Your task to perform on an android device: change the clock style Image 0: 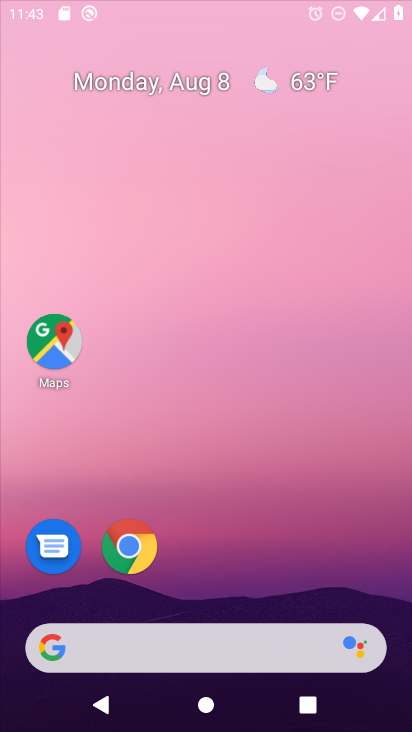
Step 0: press home button
Your task to perform on an android device: change the clock style Image 1: 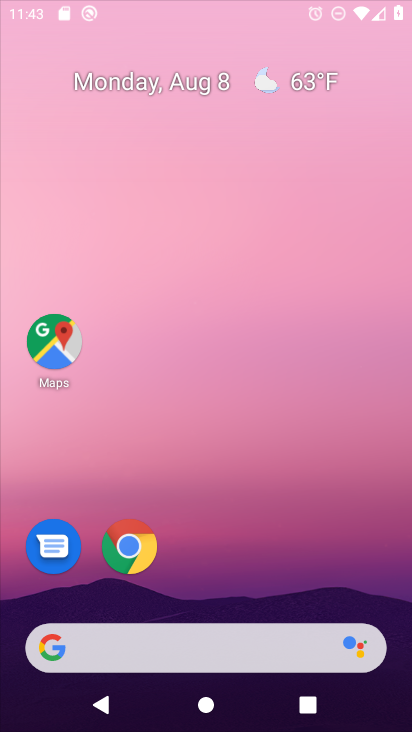
Step 1: click (237, 49)
Your task to perform on an android device: change the clock style Image 2: 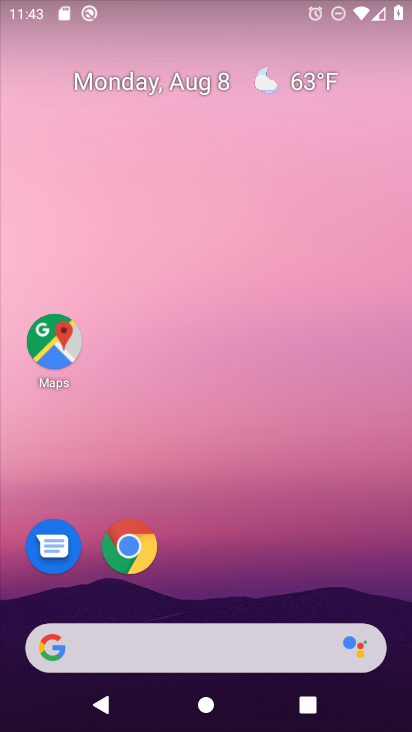
Step 2: drag from (208, 595) to (220, 85)
Your task to perform on an android device: change the clock style Image 3: 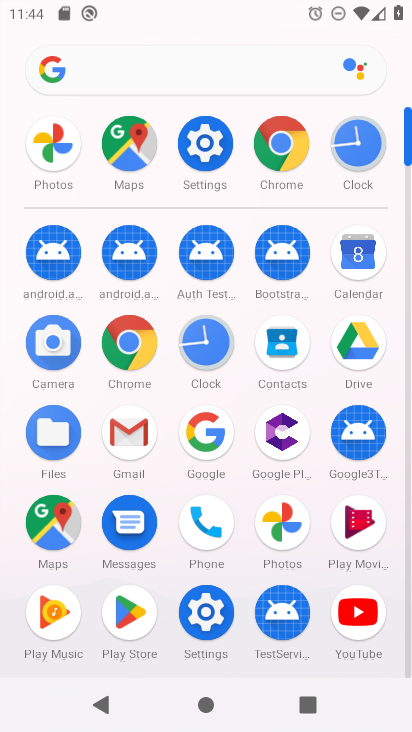
Step 3: click (198, 336)
Your task to perform on an android device: change the clock style Image 4: 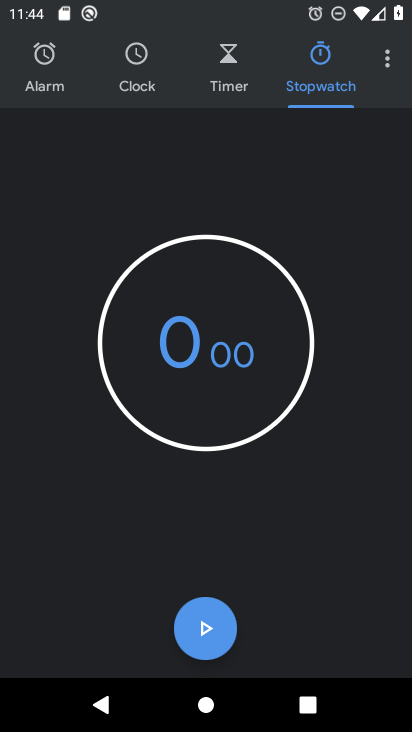
Step 4: click (382, 56)
Your task to perform on an android device: change the clock style Image 5: 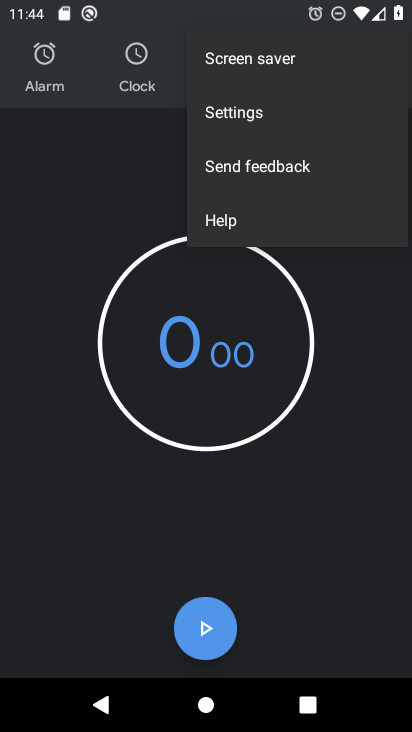
Step 5: click (268, 111)
Your task to perform on an android device: change the clock style Image 6: 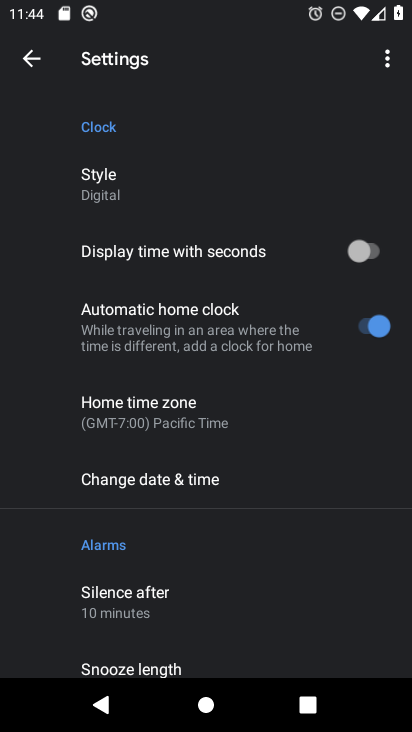
Step 6: click (144, 183)
Your task to perform on an android device: change the clock style Image 7: 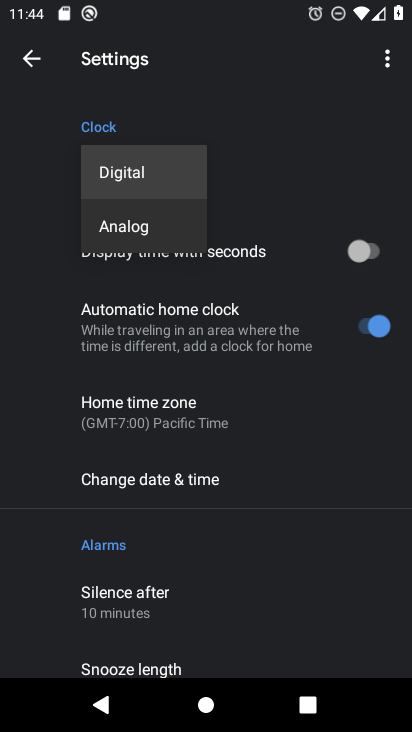
Step 7: click (167, 238)
Your task to perform on an android device: change the clock style Image 8: 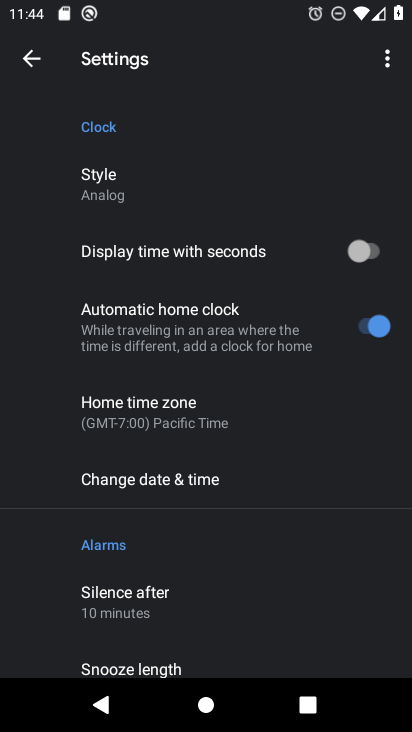
Step 8: task complete